Your task to perform on an android device: change alarm snooze length Image 0: 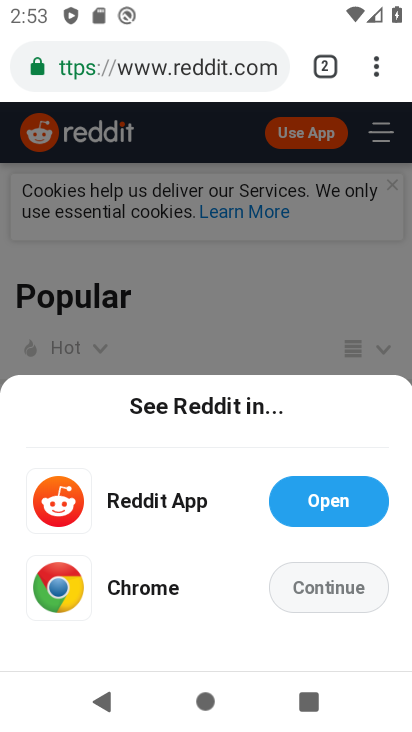
Step 0: press home button
Your task to perform on an android device: change alarm snooze length Image 1: 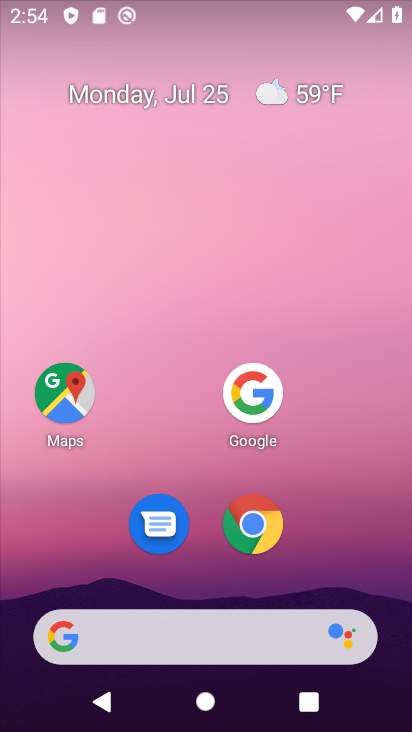
Step 1: drag from (187, 626) to (330, 64)
Your task to perform on an android device: change alarm snooze length Image 2: 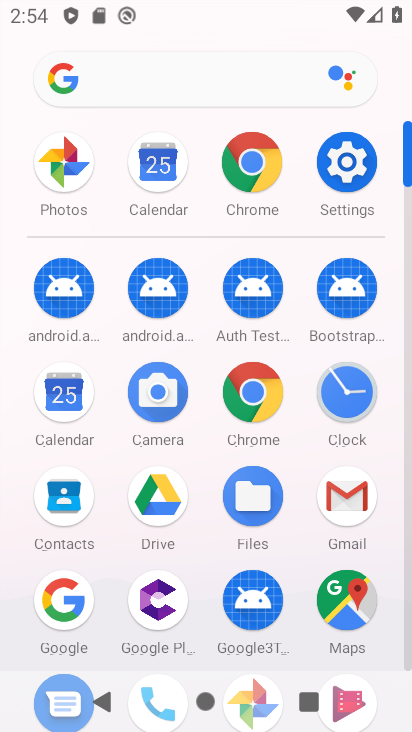
Step 2: click (347, 394)
Your task to perform on an android device: change alarm snooze length Image 3: 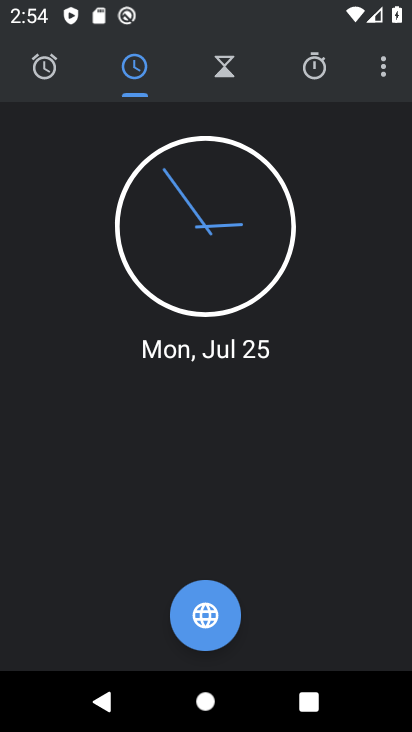
Step 3: click (377, 65)
Your task to perform on an android device: change alarm snooze length Image 4: 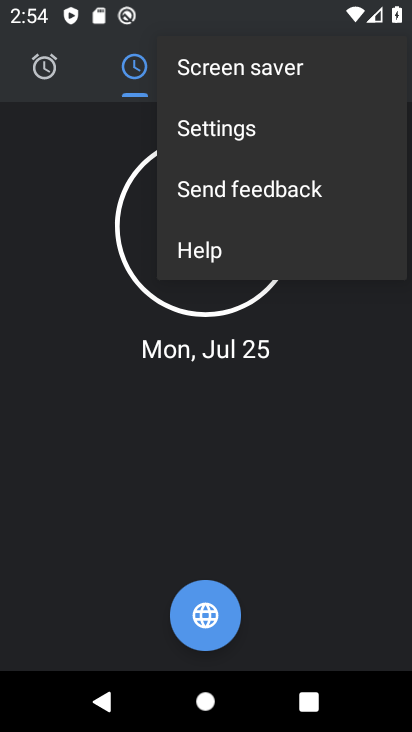
Step 4: click (250, 129)
Your task to perform on an android device: change alarm snooze length Image 5: 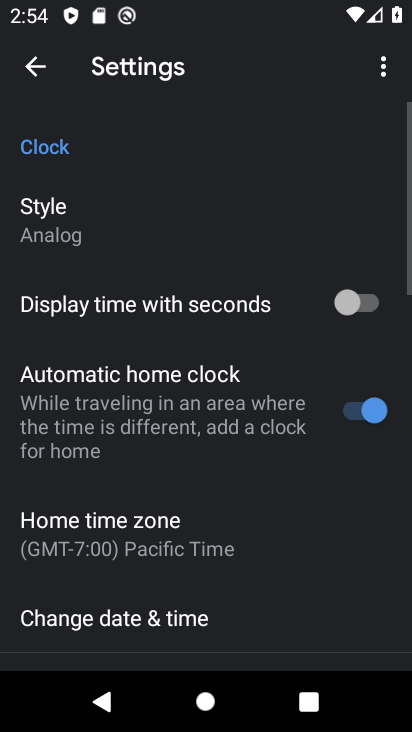
Step 5: drag from (224, 529) to (330, 189)
Your task to perform on an android device: change alarm snooze length Image 6: 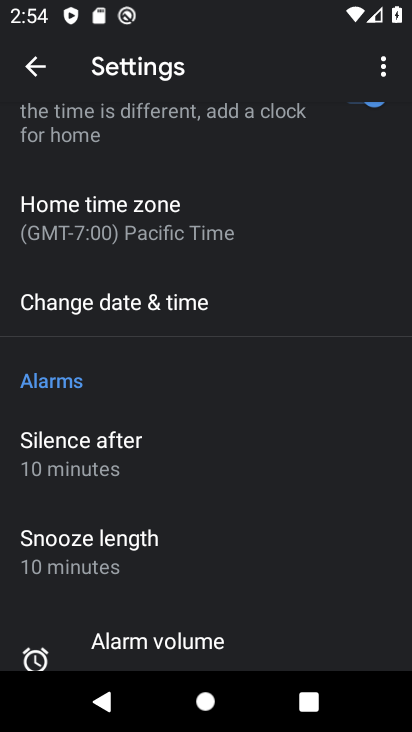
Step 6: drag from (229, 486) to (315, 205)
Your task to perform on an android device: change alarm snooze length Image 7: 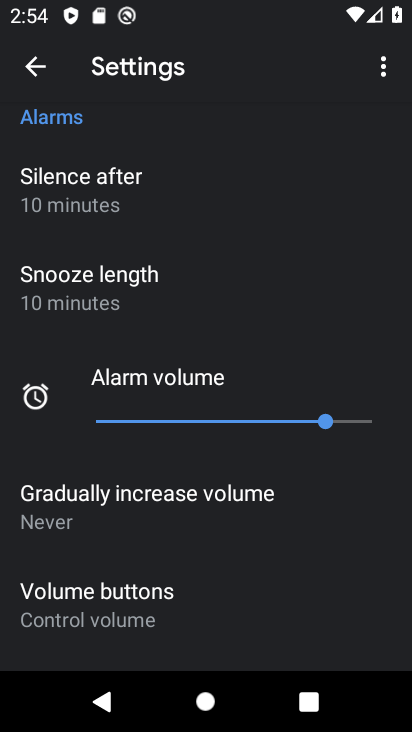
Step 7: click (148, 314)
Your task to perform on an android device: change alarm snooze length Image 8: 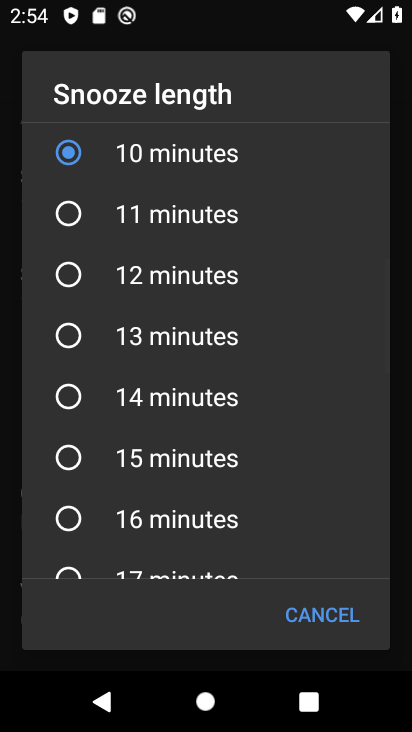
Step 8: click (72, 459)
Your task to perform on an android device: change alarm snooze length Image 9: 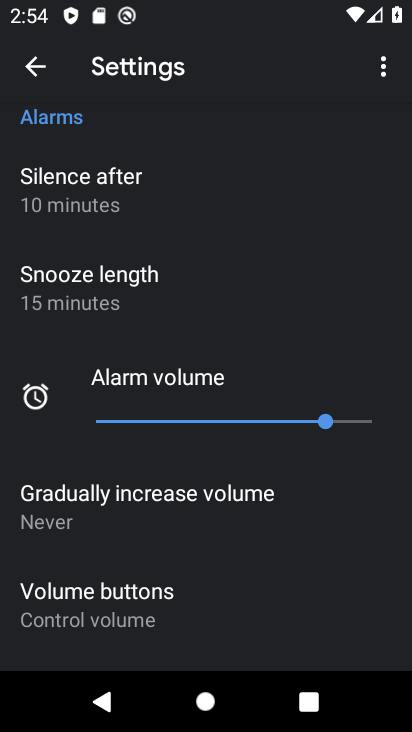
Step 9: task complete